Your task to perform on an android device: Open Chrome and go to settings Image 0: 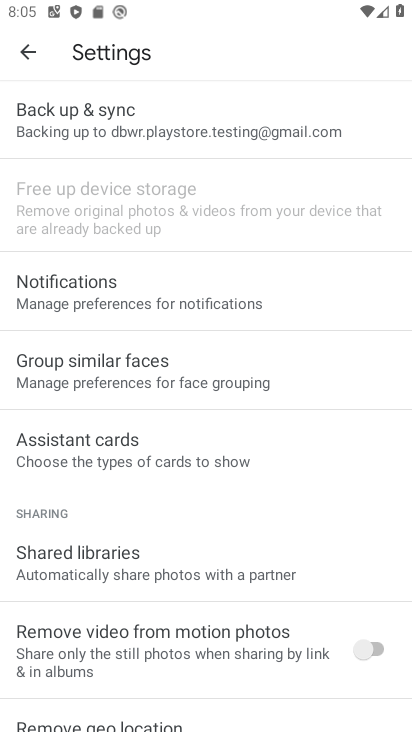
Step 0: task complete